Your task to perform on an android device: open sync settings in chrome Image 0: 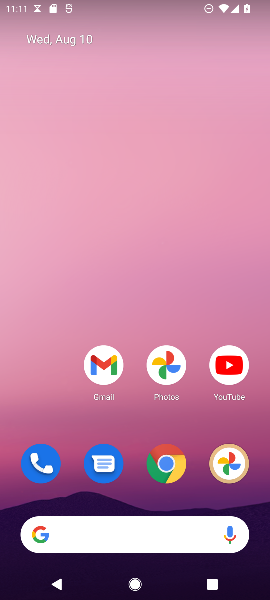
Step 0: click (167, 469)
Your task to perform on an android device: open sync settings in chrome Image 1: 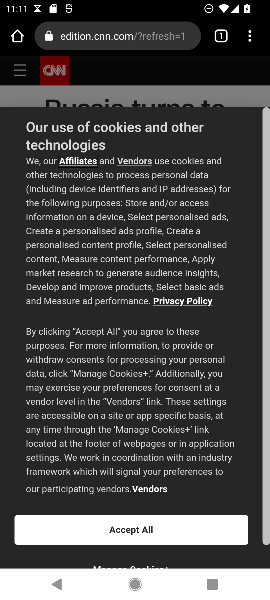
Step 1: click (254, 44)
Your task to perform on an android device: open sync settings in chrome Image 2: 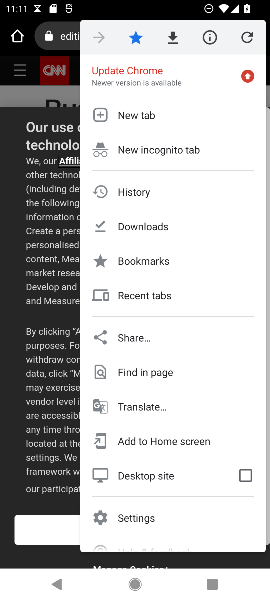
Step 2: click (124, 515)
Your task to perform on an android device: open sync settings in chrome Image 3: 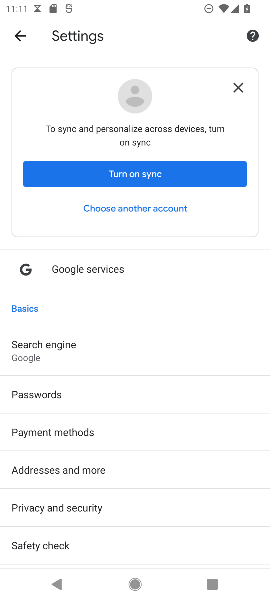
Step 3: drag from (124, 424) to (98, 91)
Your task to perform on an android device: open sync settings in chrome Image 4: 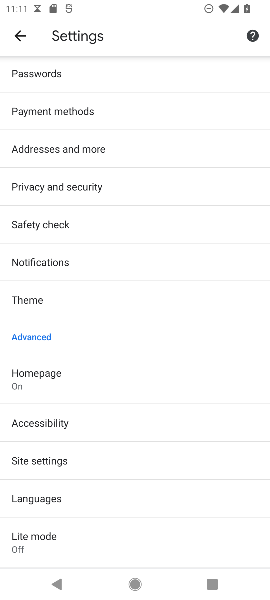
Step 4: click (34, 465)
Your task to perform on an android device: open sync settings in chrome Image 5: 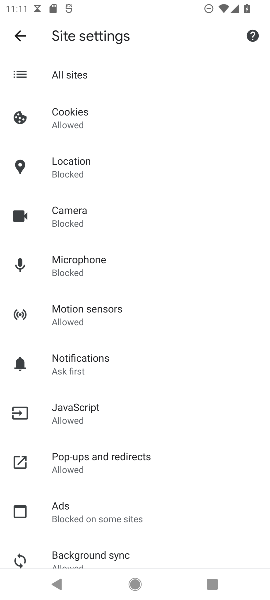
Step 5: drag from (189, 498) to (150, 476)
Your task to perform on an android device: open sync settings in chrome Image 6: 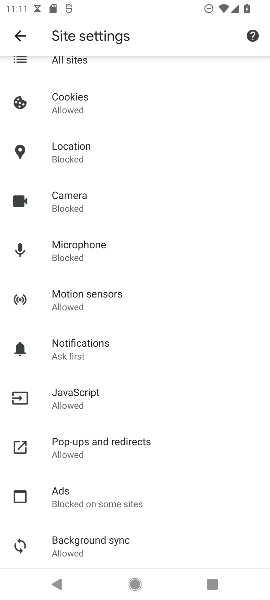
Step 6: drag from (202, 524) to (213, 155)
Your task to perform on an android device: open sync settings in chrome Image 7: 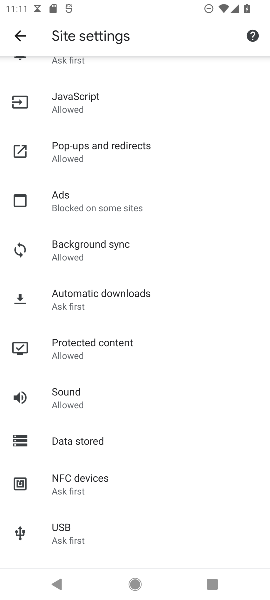
Step 7: drag from (192, 83) to (265, 360)
Your task to perform on an android device: open sync settings in chrome Image 8: 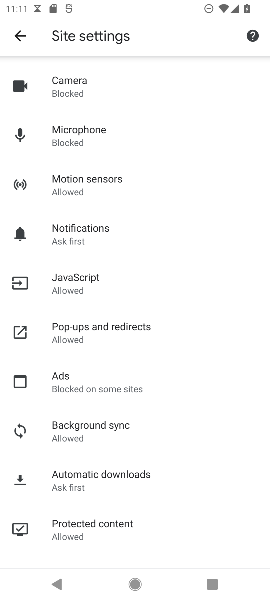
Step 8: drag from (163, 122) to (194, 307)
Your task to perform on an android device: open sync settings in chrome Image 9: 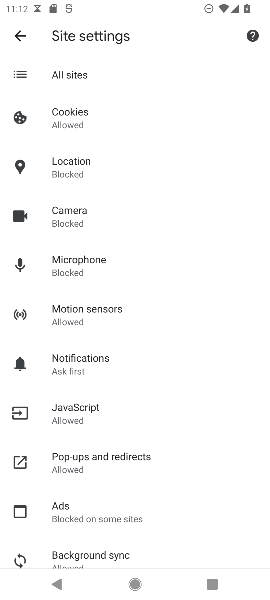
Step 9: drag from (170, 88) to (186, 248)
Your task to perform on an android device: open sync settings in chrome Image 10: 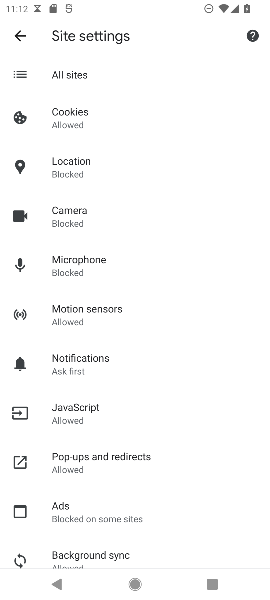
Step 10: drag from (201, 503) to (208, 339)
Your task to perform on an android device: open sync settings in chrome Image 11: 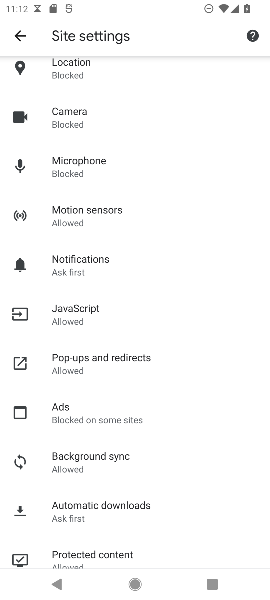
Step 11: click (72, 466)
Your task to perform on an android device: open sync settings in chrome Image 12: 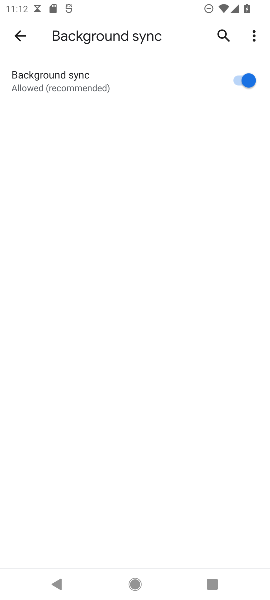
Step 12: task complete